Your task to perform on an android device: toggle improve location accuracy Image 0: 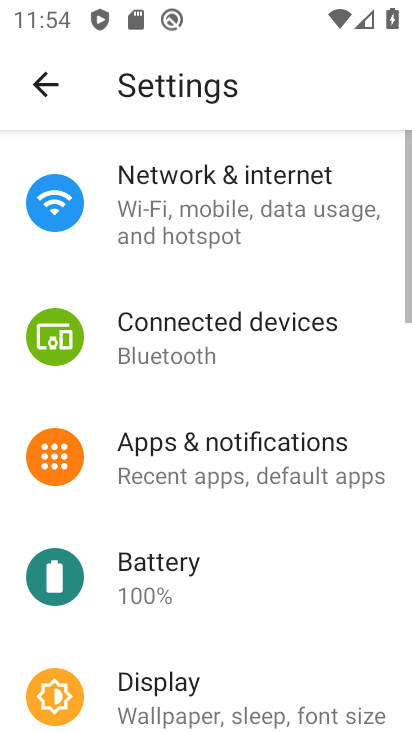
Step 0: drag from (264, 632) to (146, 49)
Your task to perform on an android device: toggle improve location accuracy Image 1: 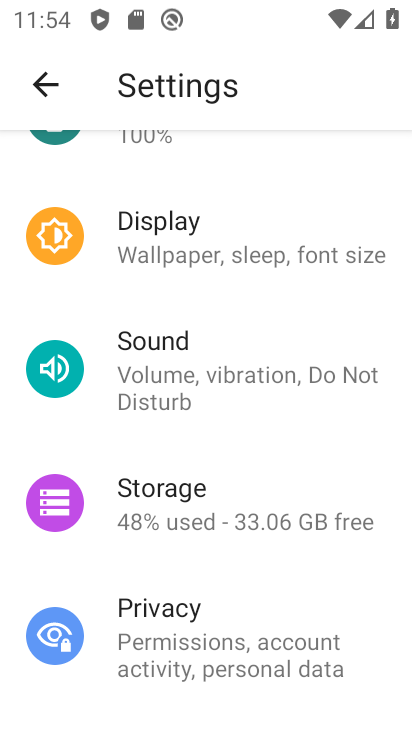
Step 1: drag from (96, 628) to (228, 152)
Your task to perform on an android device: toggle improve location accuracy Image 2: 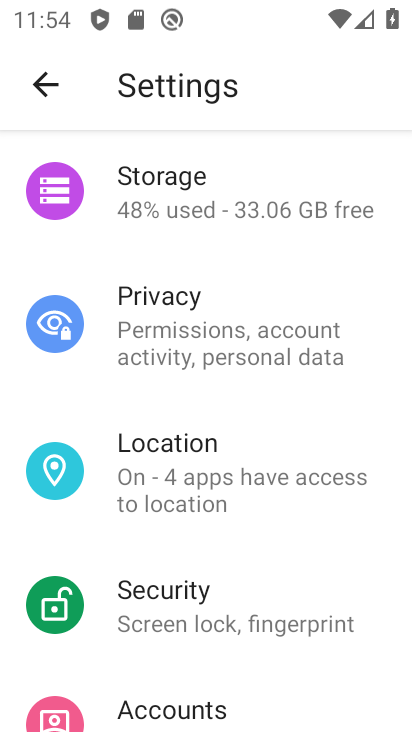
Step 2: click (139, 463)
Your task to perform on an android device: toggle improve location accuracy Image 3: 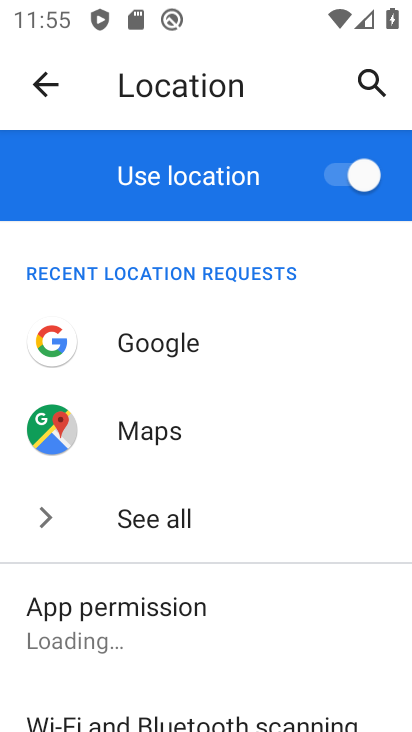
Step 3: drag from (144, 646) to (193, 181)
Your task to perform on an android device: toggle improve location accuracy Image 4: 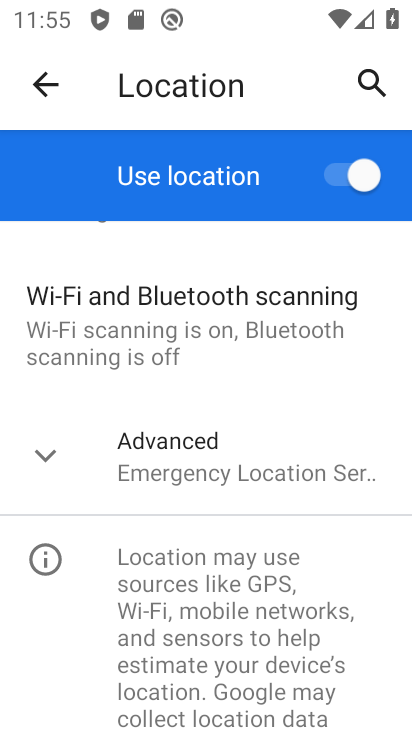
Step 4: click (135, 457)
Your task to perform on an android device: toggle improve location accuracy Image 5: 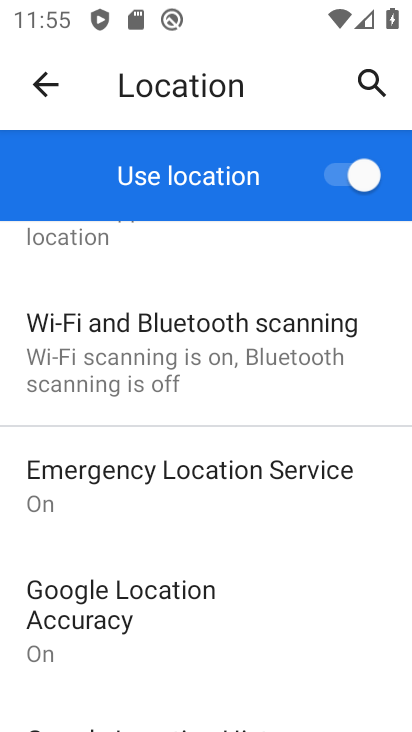
Step 5: click (91, 616)
Your task to perform on an android device: toggle improve location accuracy Image 6: 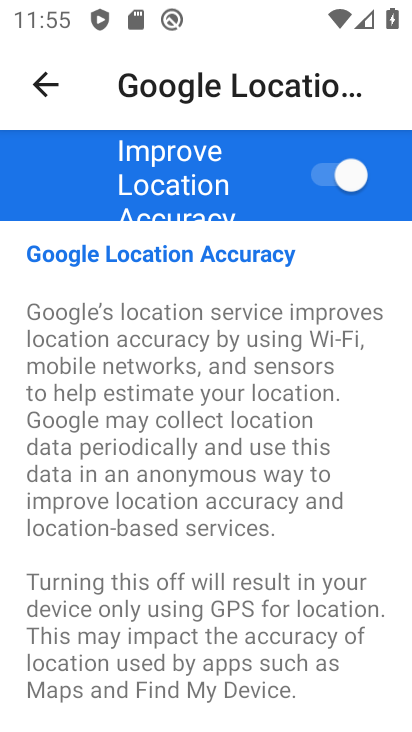
Step 6: click (346, 180)
Your task to perform on an android device: toggle improve location accuracy Image 7: 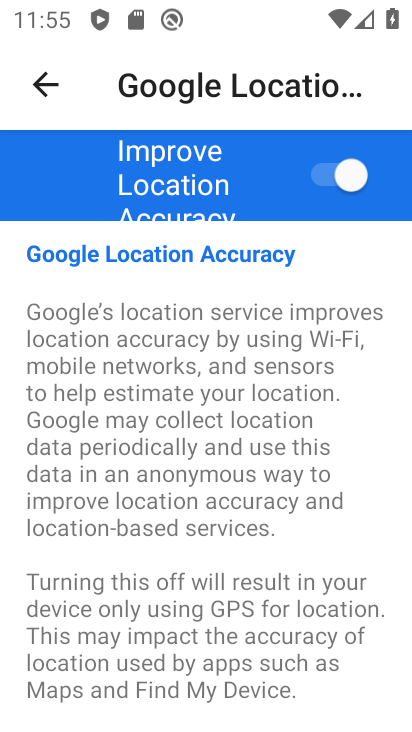
Step 7: click (346, 180)
Your task to perform on an android device: toggle improve location accuracy Image 8: 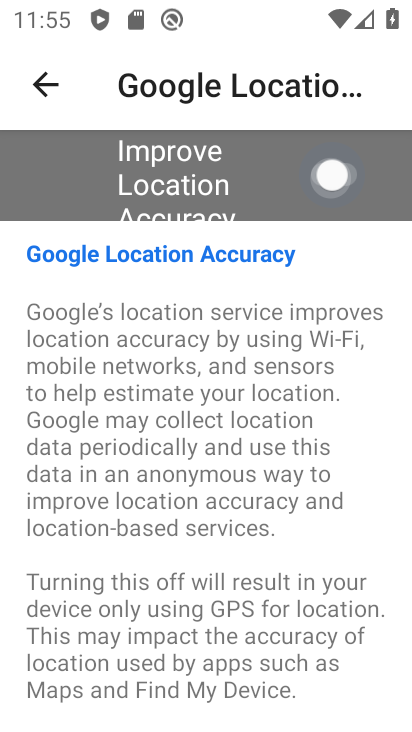
Step 8: click (346, 180)
Your task to perform on an android device: toggle improve location accuracy Image 9: 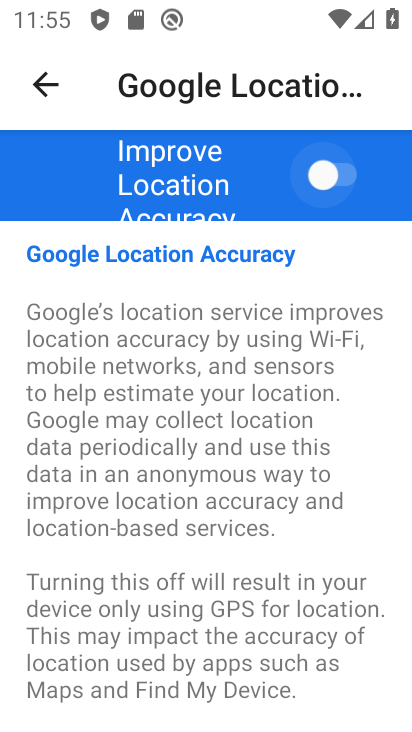
Step 9: click (346, 180)
Your task to perform on an android device: toggle improve location accuracy Image 10: 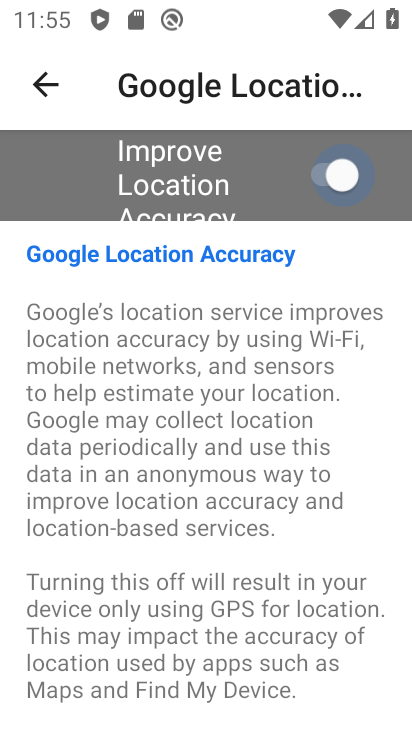
Step 10: click (346, 180)
Your task to perform on an android device: toggle improve location accuracy Image 11: 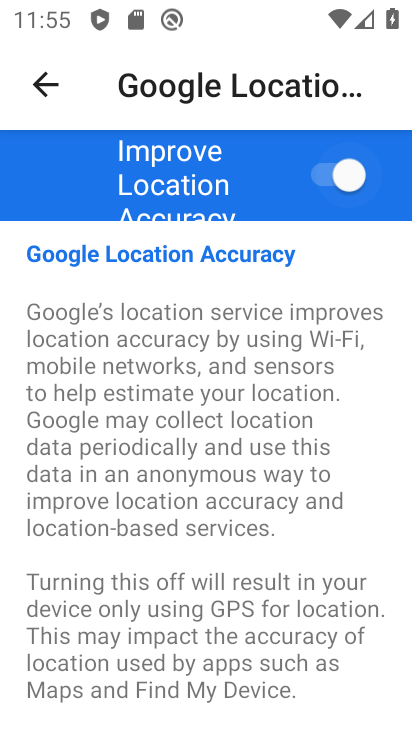
Step 11: click (346, 180)
Your task to perform on an android device: toggle improve location accuracy Image 12: 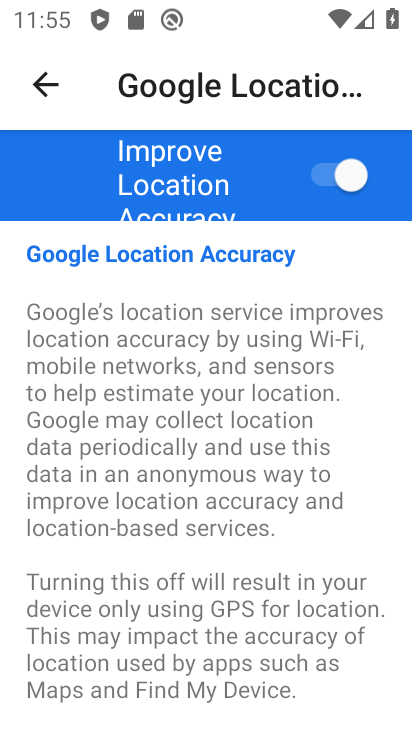
Step 12: task complete